Your task to perform on an android device: toggle location history Image 0: 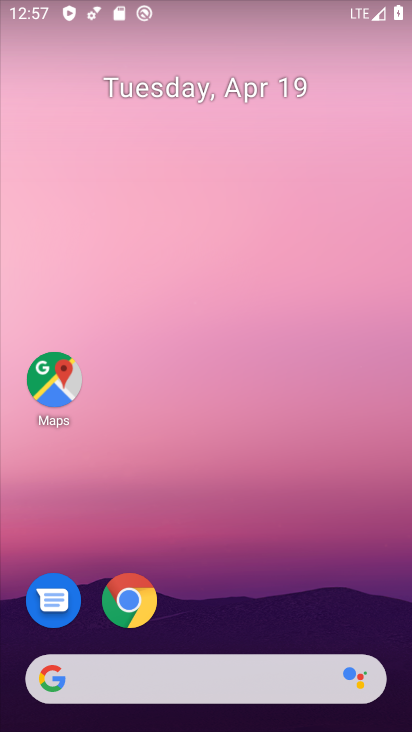
Step 0: drag from (220, 650) to (202, 12)
Your task to perform on an android device: toggle location history Image 1: 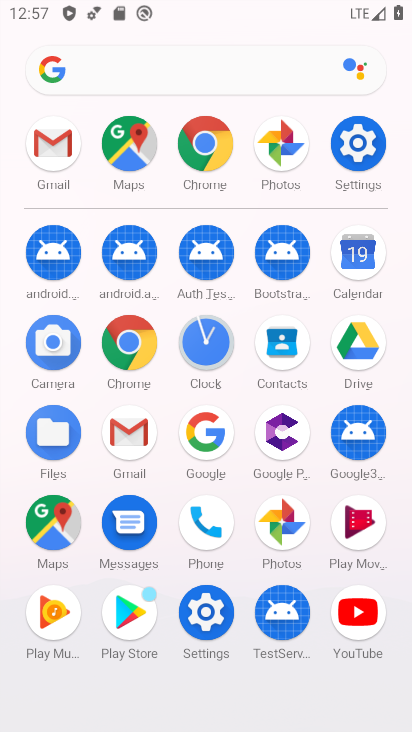
Step 1: click (350, 149)
Your task to perform on an android device: toggle location history Image 2: 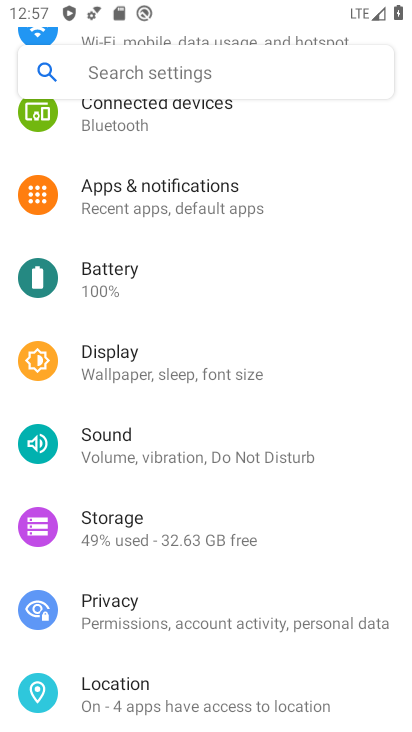
Step 2: click (167, 686)
Your task to perform on an android device: toggle location history Image 3: 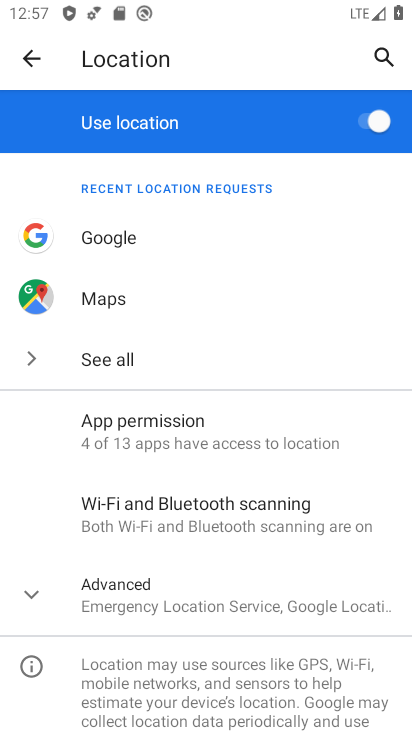
Step 3: click (159, 589)
Your task to perform on an android device: toggle location history Image 4: 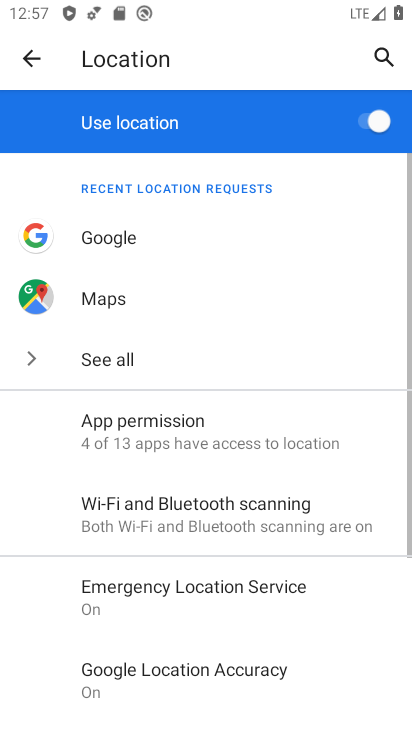
Step 4: drag from (159, 589) to (110, 161)
Your task to perform on an android device: toggle location history Image 5: 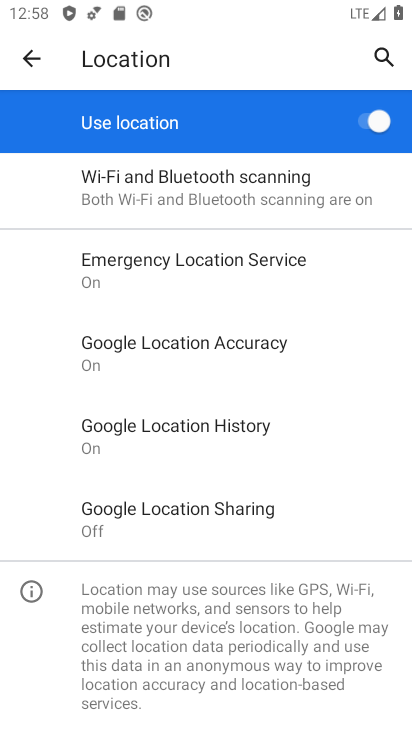
Step 5: click (158, 413)
Your task to perform on an android device: toggle location history Image 6: 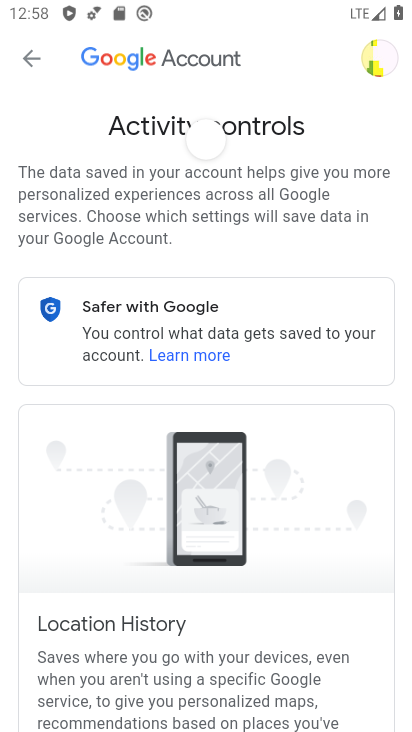
Step 6: drag from (247, 537) to (224, 191)
Your task to perform on an android device: toggle location history Image 7: 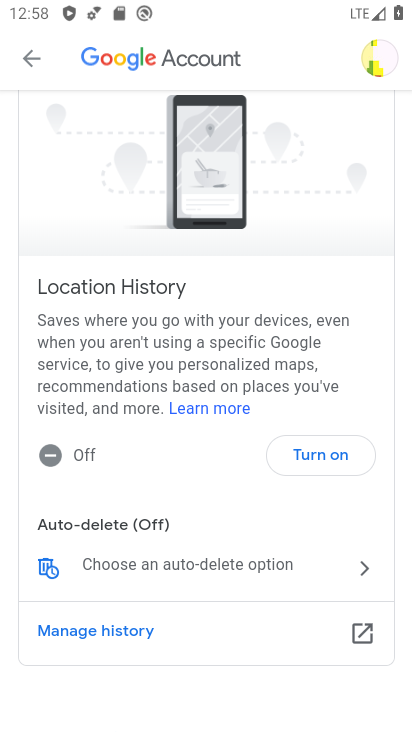
Step 7: click (320, 452)
Your task to perform on an android device: toggle location history Image 8: 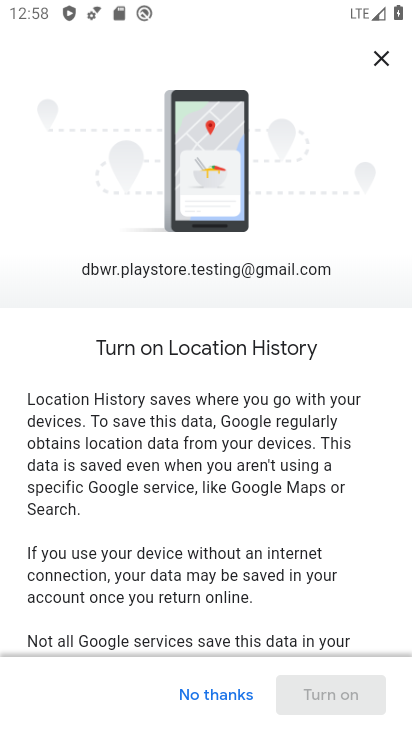
Step 8: drag from (326, 635) to (275, 86)
Your task to perform on an android device: toggle location history Image 9: 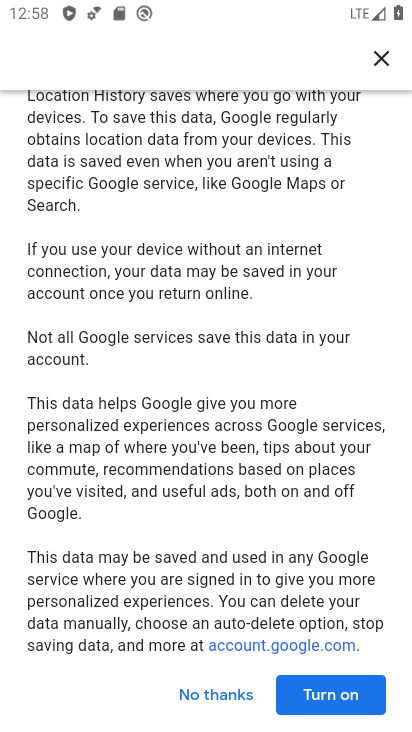
Step 9: click (339, 687)
Your task to perform on an android device: toggle location history Image 10: 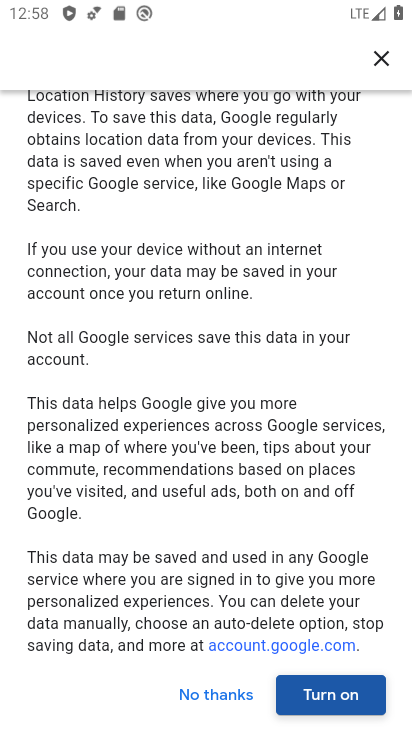
Step 10: click (339, 687)
Your task to perform on an android device: toggle location history Image 11: 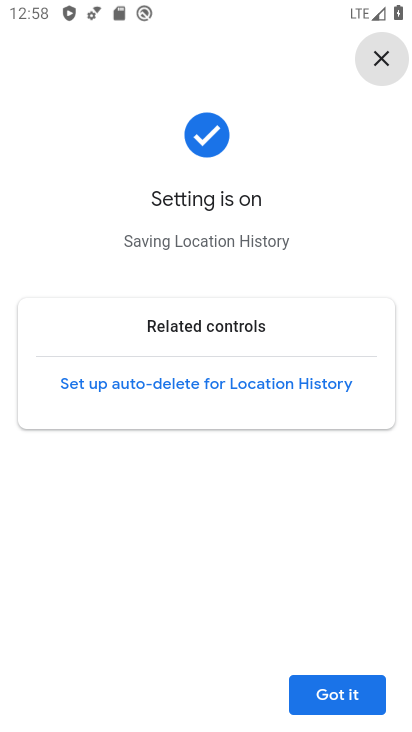
Step 11: click (327, 703)
Your task to perform on an android device: toggle location history Image 12: 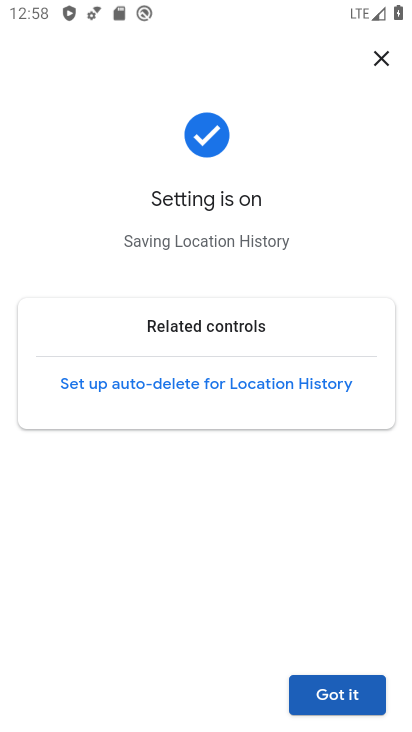
Step 12: task complete